Your task to perform on an android device: find which apps use the phone's location Image 0: 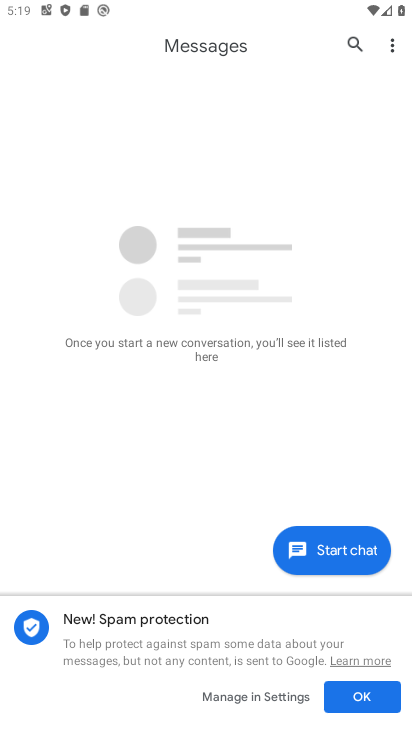
Step 0: press home button
Your task to perform on an android device: find which apps use the phone's location Image 1: 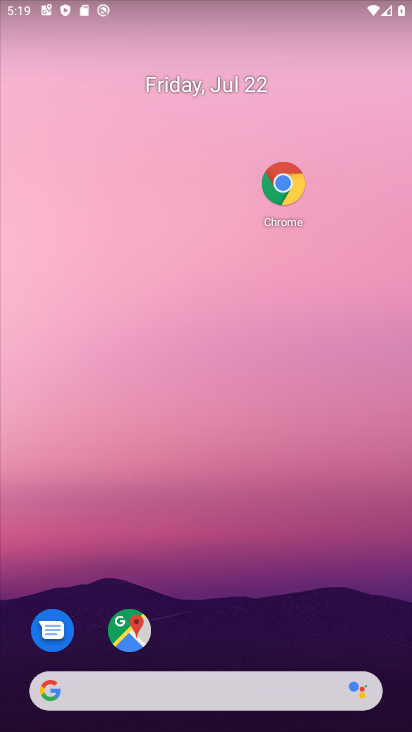
Step 1: drag from (170, 619) to (240, 223)
Your task to perform on an android device: find which apps use the phone's location Image 2: 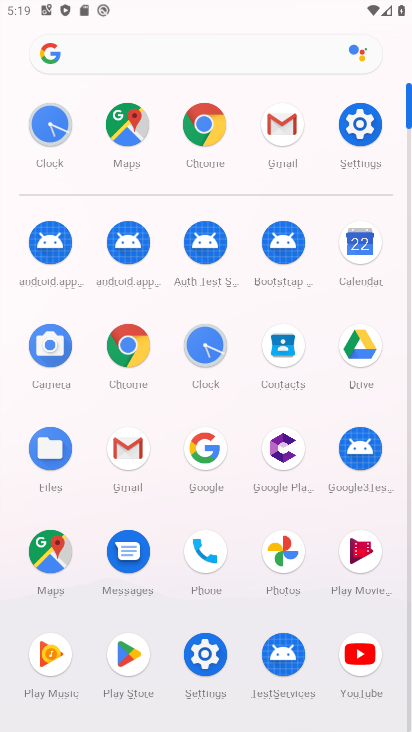
Step 2: click (363, 136)
Your task to perform on an android device: find which apps use the phone's location Image 3: 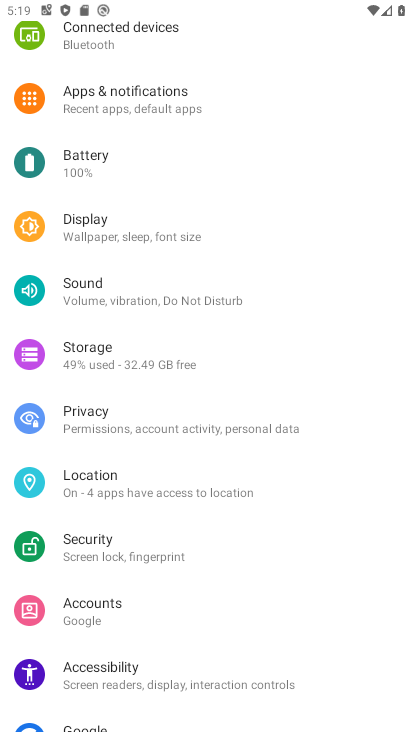
Step 3: click (82, 476)
Your task to perform on an android device: find which apps use the phone's location Image 4: 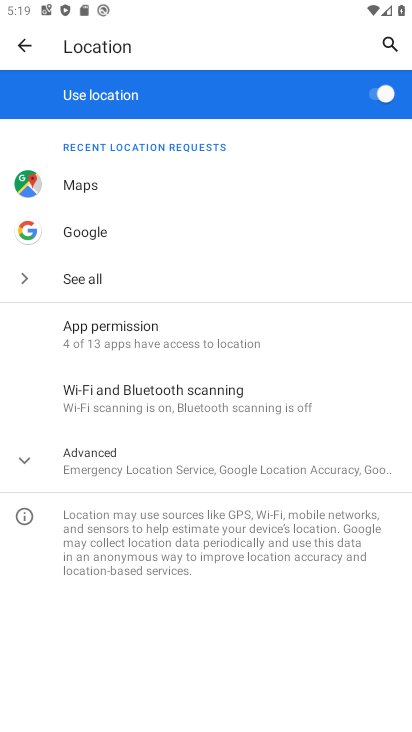
Step 4: click (82, 476)
Your task to perform on an android device: find which apps use the phone's location Image 5: 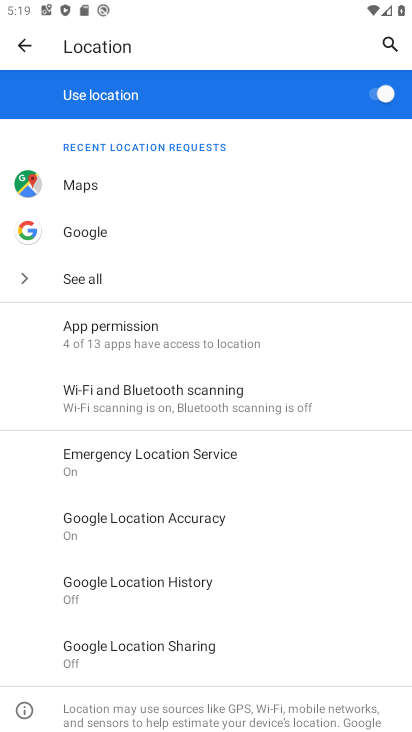
Step 5: click (150, 343)
Your task to perform on an android device: find which apps use the phone's location Image 6: 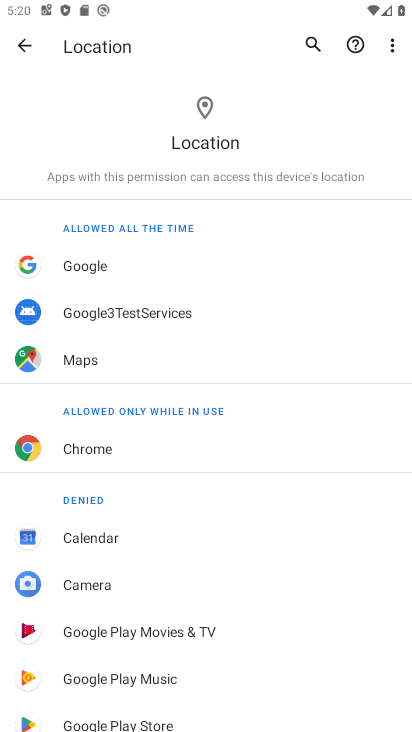
Step 6: task complete